Your task to perform on an android device: turn on notifications settings in the gmail app Image 0: 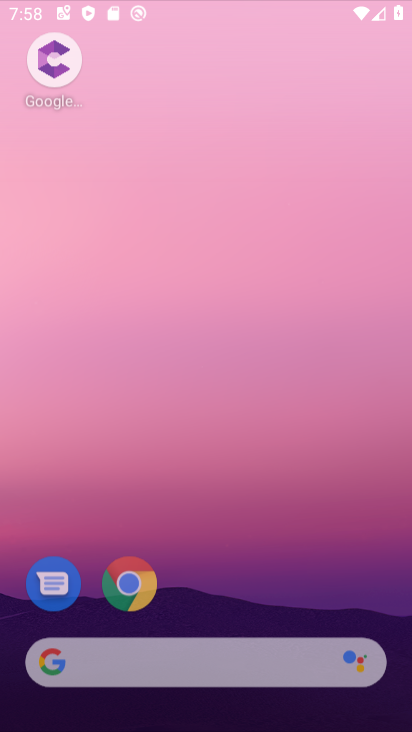
Step 0: drag from (209, 492) to (219, 158)
Your task to perform on an android device: turn on notifications settings in the gmail app Image 1: 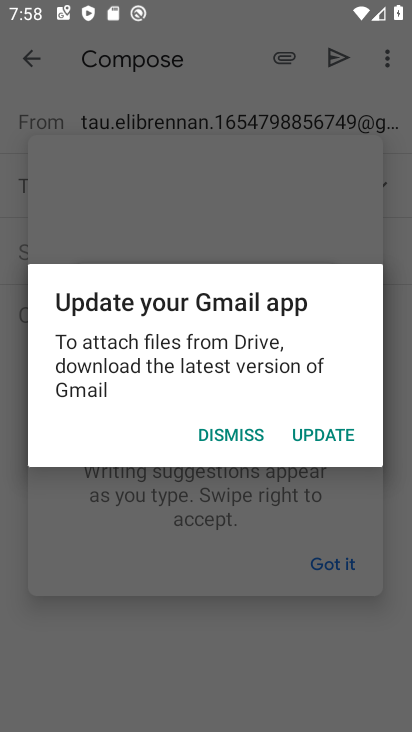
Step 1: press home button
Your task to perform on an android device: turn on notifications settings in the gmail app Image 2: 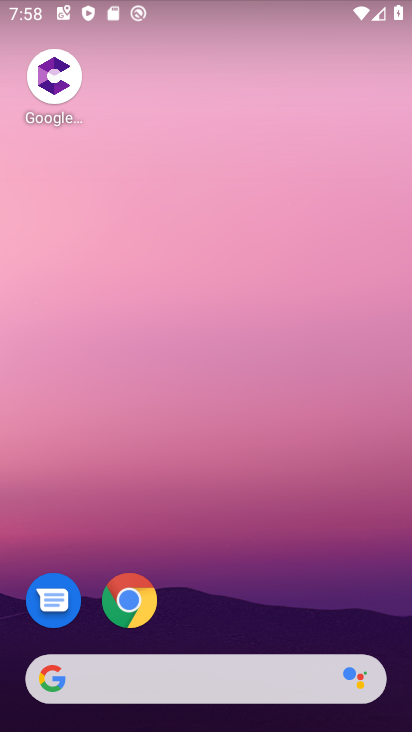
Step 2: drag from (203, 561) to (222, 68)
Your task to perform on an android device: turn on notifications settings in the gmail app Image 3: 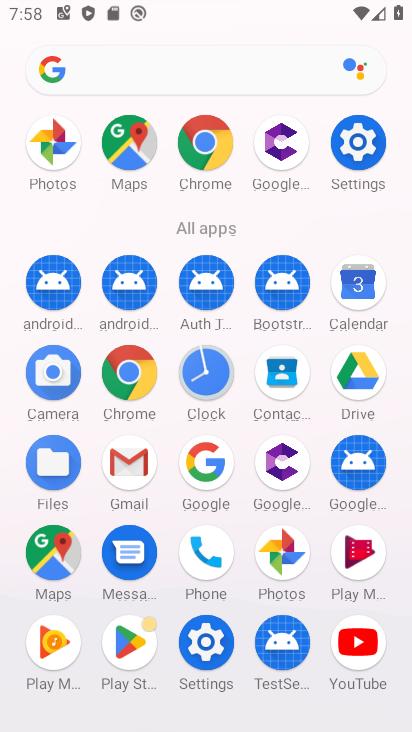
Step 3: click (124, 467)
Your task to perform on an android device: turn on notifications settings in the gmail app Image 4: 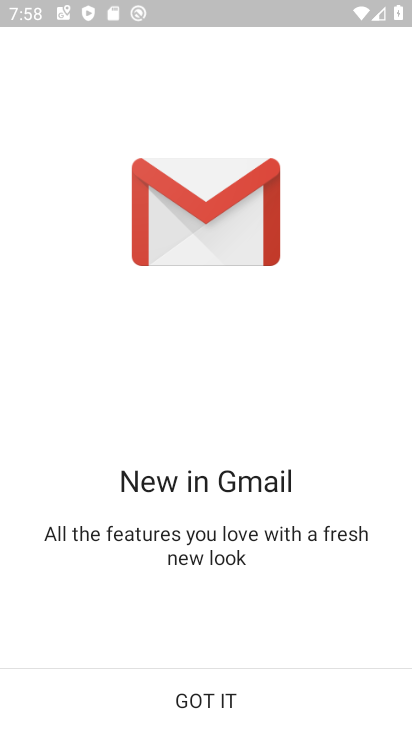
Step 4: click (269, 700)
Your task to perform on an android device: turn on notifications settings in the gmail app Image 5: 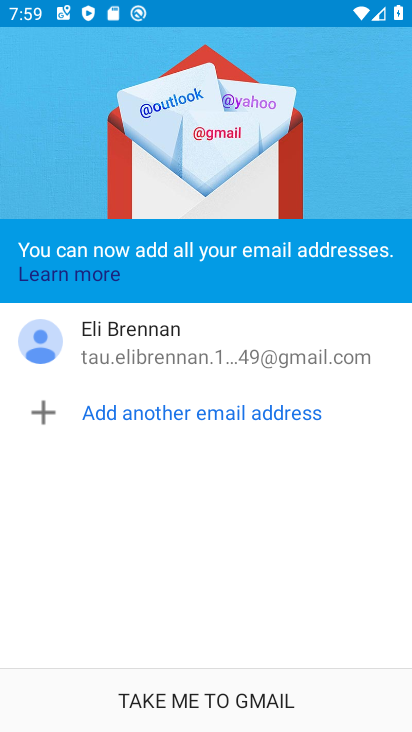
Step 5: click (158, 702)
Your task to perform on an android device: turn on notifications settings in the gmail app Image 6: 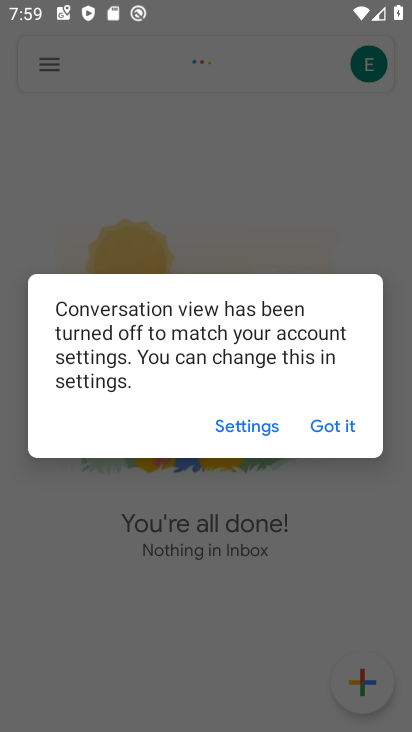
Step 6: click (246, 413)
Your task to perform on an android device: turn on notifications settings in the gmail app Image 7: 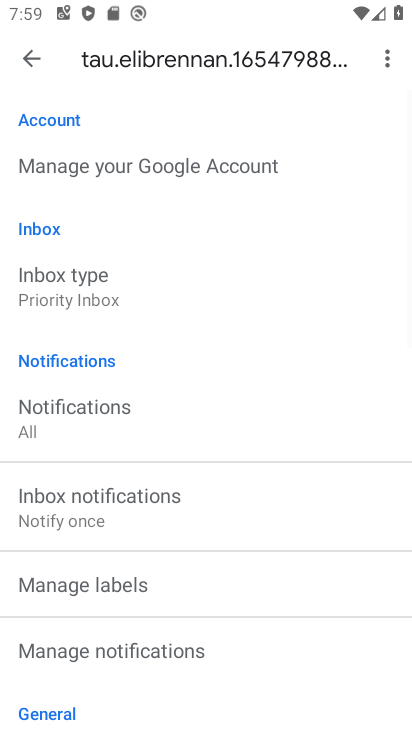
Step 7: click (27, 43)
Your task to perform on an android device: turn on notifications settings in the gmail app Image 8: 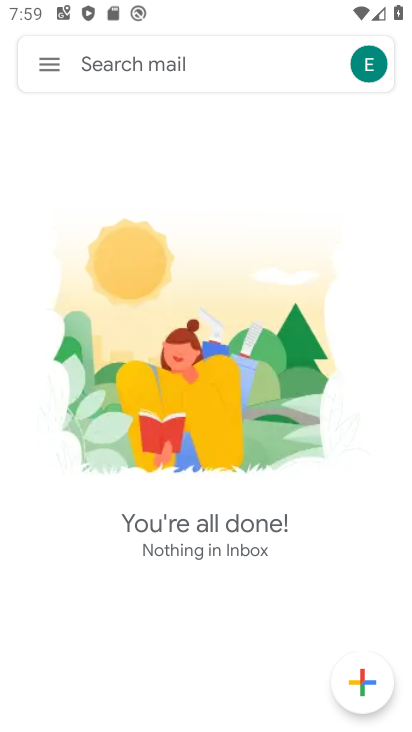
Step 8: click (34, 46)
Your task to perform on an android device: turn on notifications settings in the gmail app Image 9: 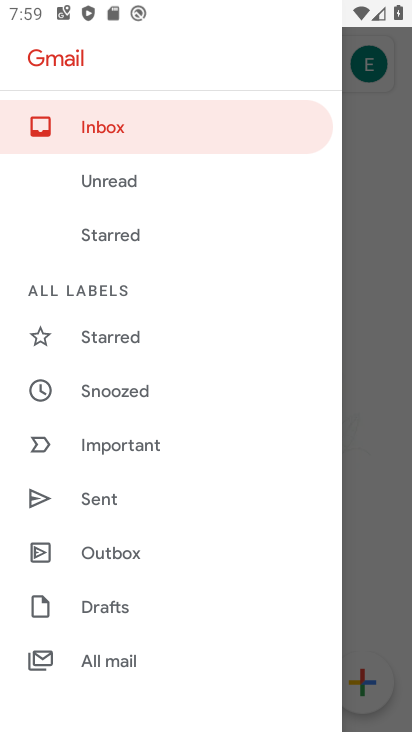
Step 9: drag from (99, 544) to (119, 250)
Your task to perform on an android device: turn on notifications settings in the gmail app Image 10: 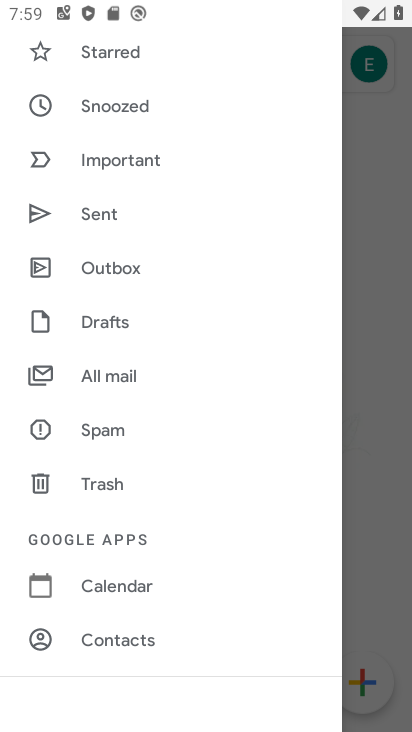
Step 10: drag from (116, 649) to (142, 330)
Your task to perform on an android device: turn on notifications settings in the gmail app Image 11: 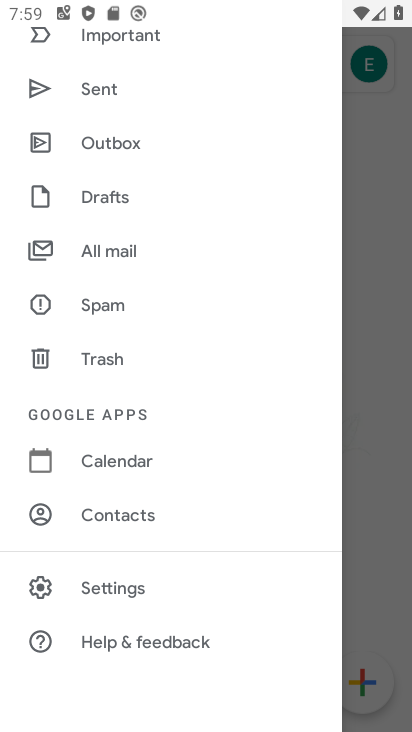
Step 11: click (106, 595)
Your task to perform on an android device: turn on notifications settings in the gmail app Image 12: 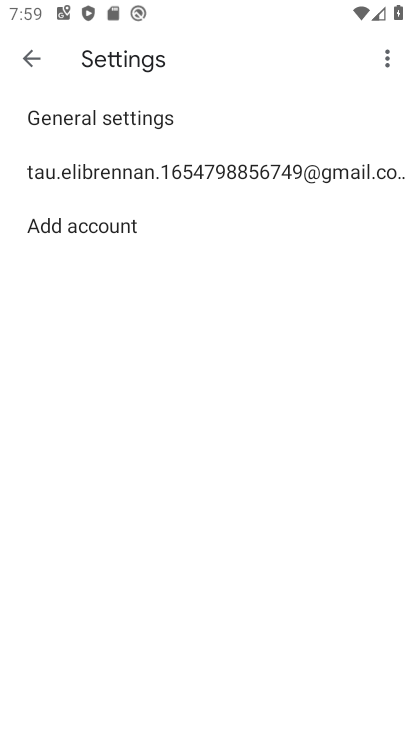
Step 12: click (133, 121)
Your task to perform on an android device: turn on notifications settings in the gmail app Image 13: 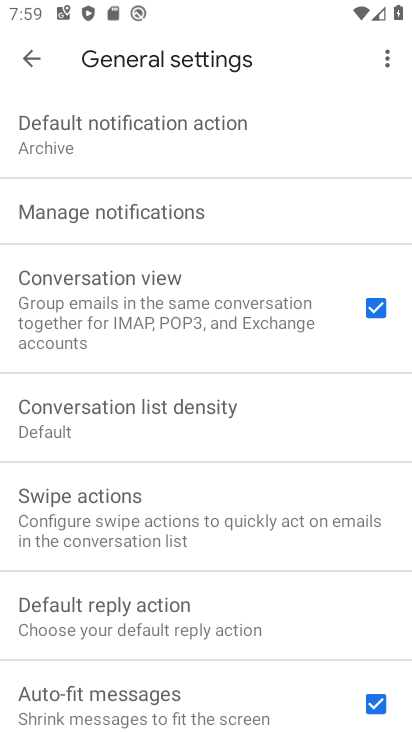
Step 13: click (156, 211)
Your task to perform on an android device: turn on notifications settings in the gmail app Image 14: 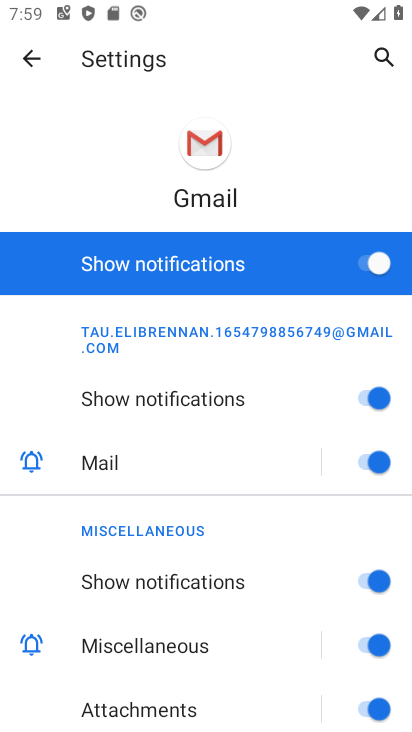
Step 14: task complete